Your task to perform on an android device: clear history in the chrome app Image 0: 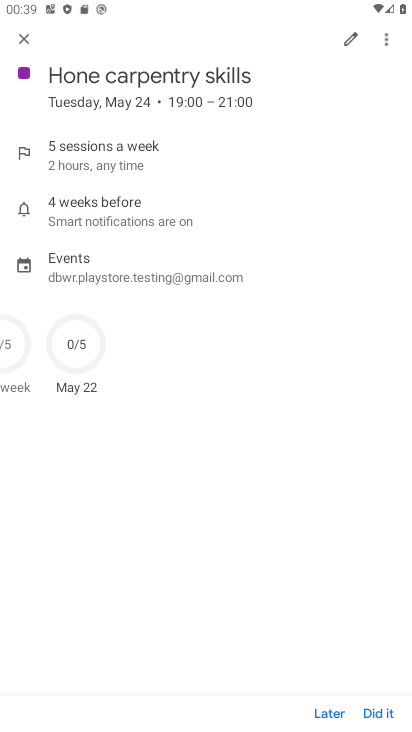
Step 0: press home button
Your task to perform on an android device: clear history in the chrome app Image 1: 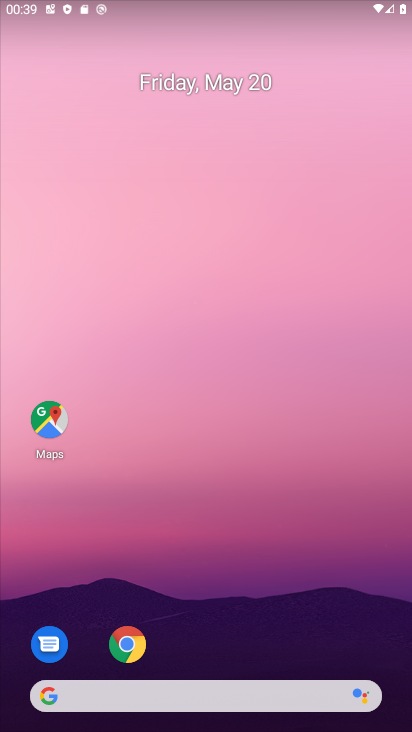
Step 1: click (135, 653)
Your task to perform on an android device: clear history in the chrome app Image 2: 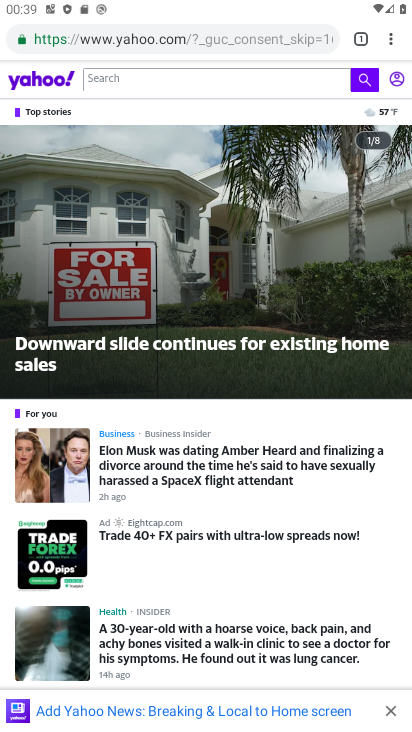
Step 2: click (394, 39)
Your task to perform on an android device: clear history in the chrome app Image 3: 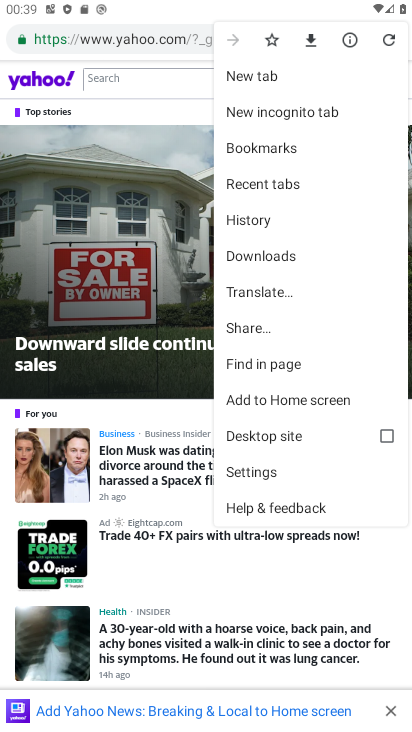
Step 3: click (252, 476)
Your task to perform on an android device: clear history in the chrome app Image 4: 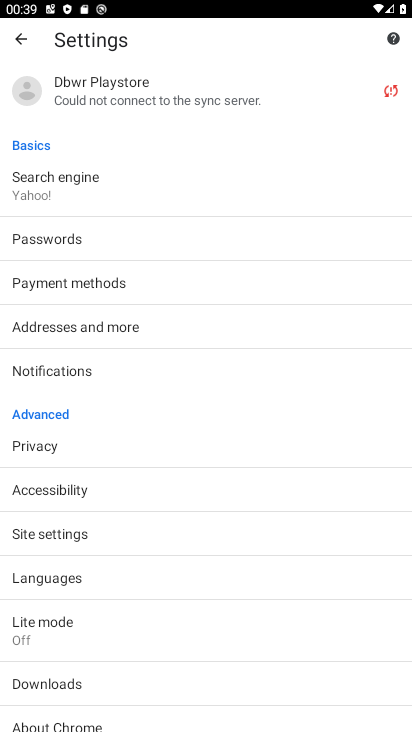
Step 4: click (47, 453)
Your task to perform on an android device: clear history in the chrome app Image 5: 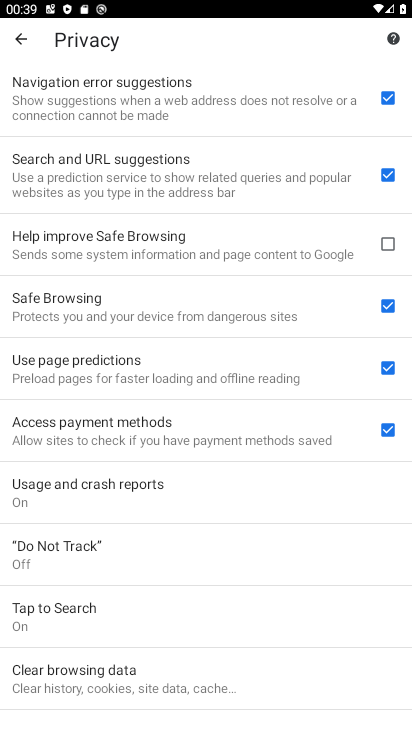
Step 5: click (97, 672)
Your task to perform on an android device: clear history in the chrome app Image 6: 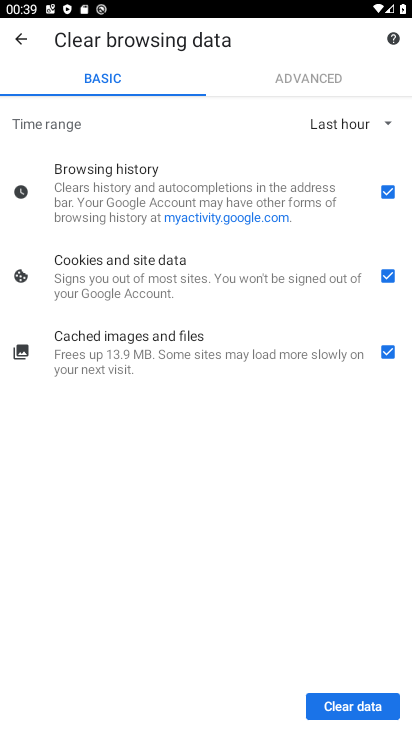
Step 6: click (389, 279)
Your task to perform on an android device: clear history in the chrome app Image 7: 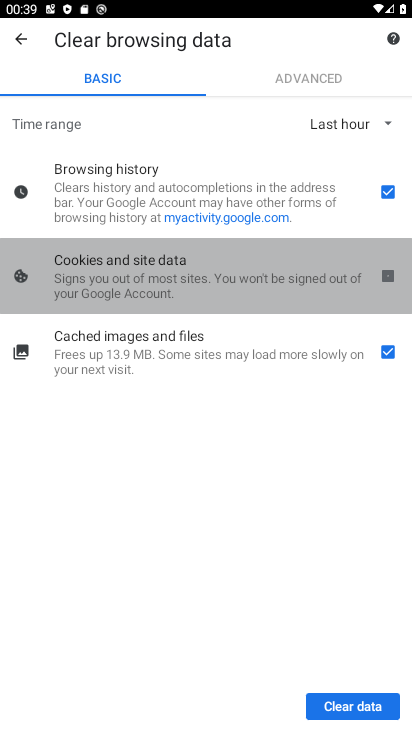
Step 7: click (392, 349)
Your task to perform on an android device: clear history in the chrome app Image 8: 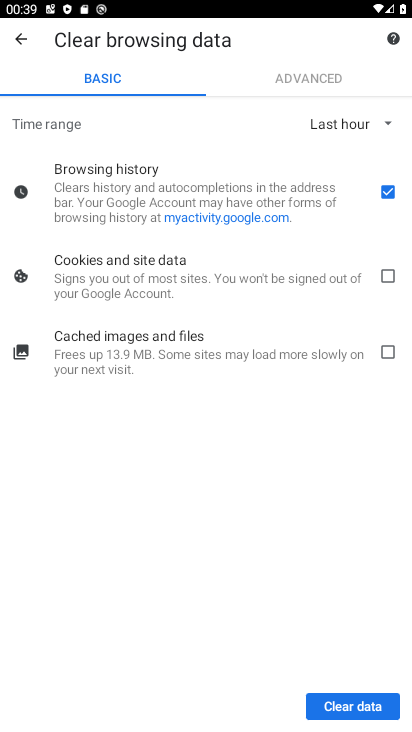
Step 8: click (338, 699)
Your task to perform on an android device: clear history in the chrome app Image 9: 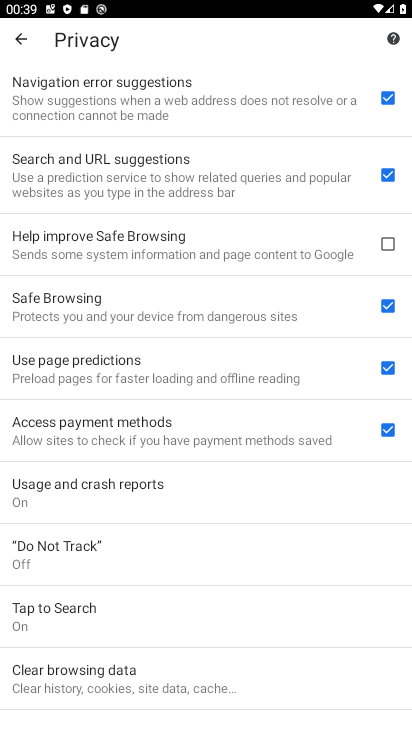
Step 9: task complete